Your task to perform on an android device: delete location history Image 0: 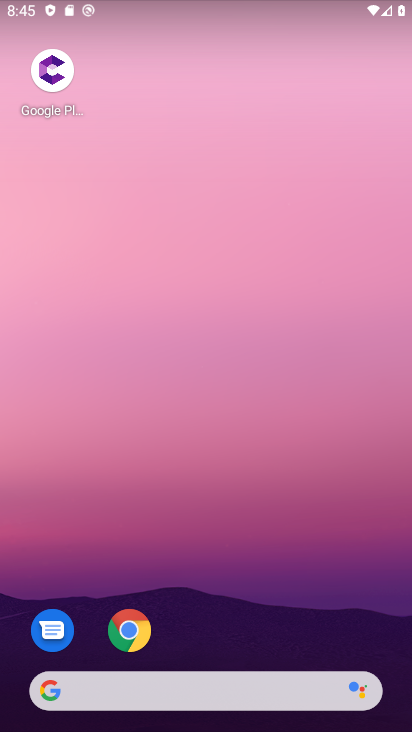
Step 0: drag from (186, 665) to (206, 187)
Your task to perform on an android device: delete location history Image 1: 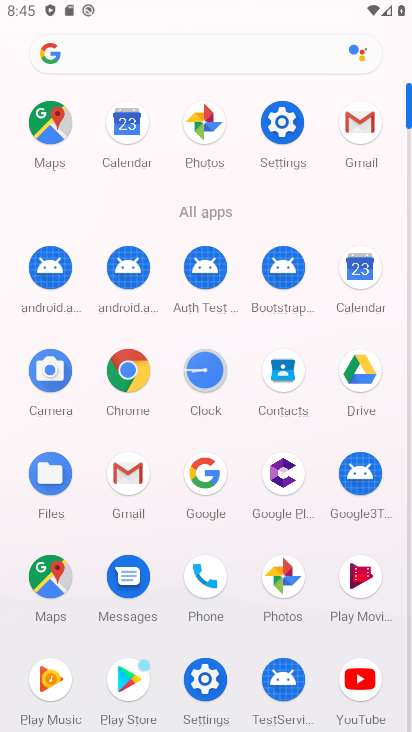
Step 1: click (286, 132)
Your task to perform on an android device: delete location history Image 2: 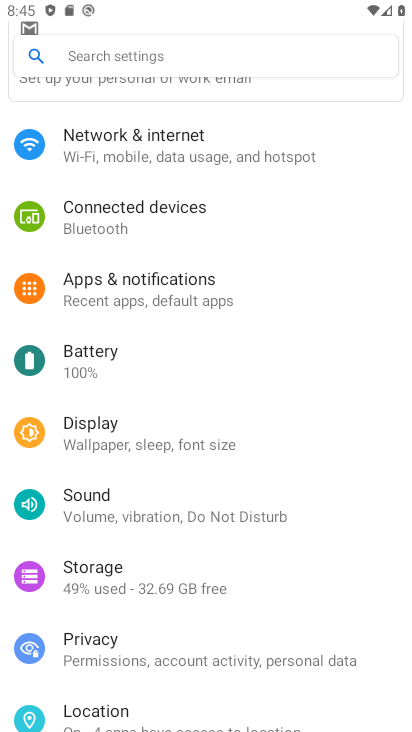
Step 2: drag from (138, 666) to (158, 237)
Your task to perform on an android device: delete location history Image 3: 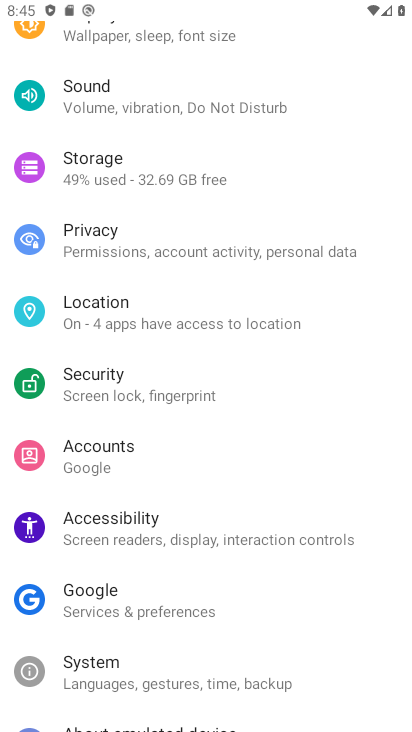
Step 3: click (144, 316)
Your task to perform on an android device: delete location history Image 4: 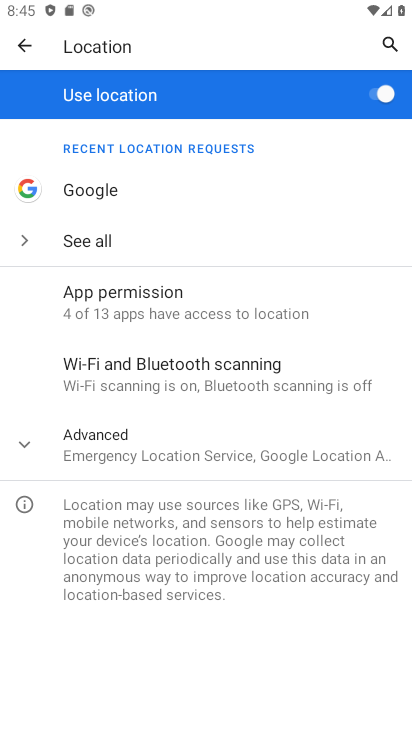
Step 4: click (116, 442)
Your task to perform on an android device: delete location history Image 5: 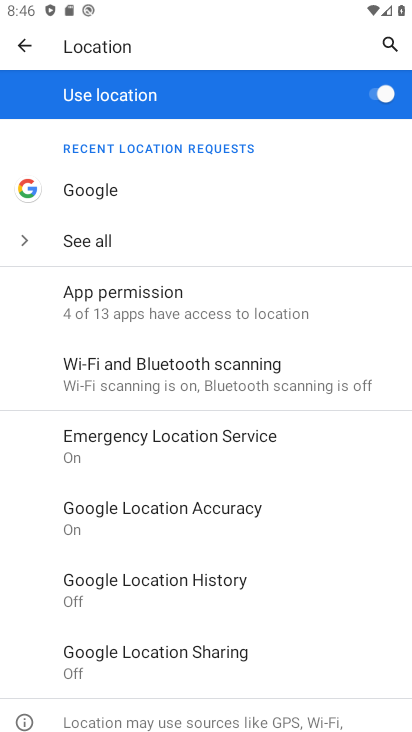
Step 5: click (103, 590)
Your task to perform on an android device: delete location history Image 6: 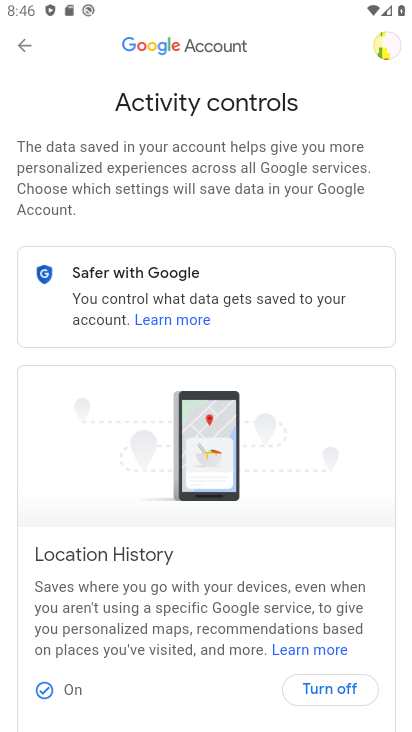
Step 6: drag from (260, 589) to (225, 214)
Your task to perform on an android device: delete location history Image 7: 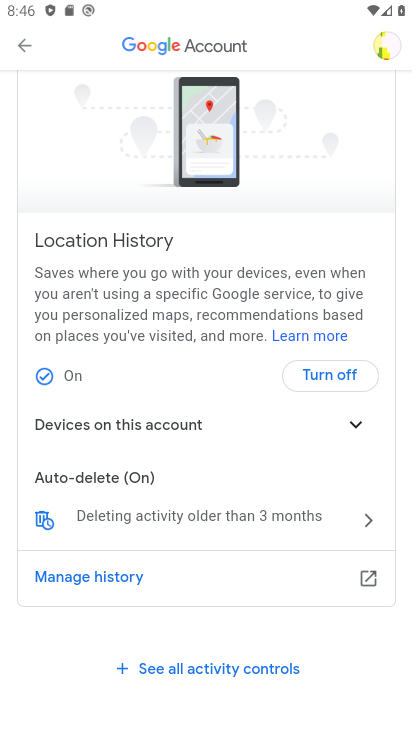
Step 7: click (375, 408)
Your task to perform on an android device: delete location history Image 8: 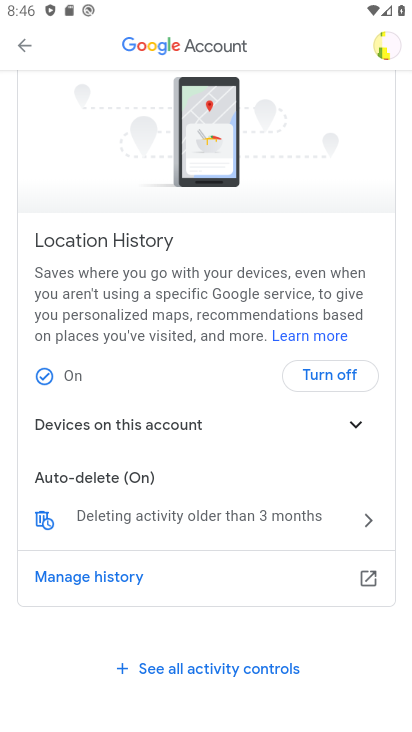
Step 8: click (362, 417)
Your task to perform on an android device: delete location history Image 9: 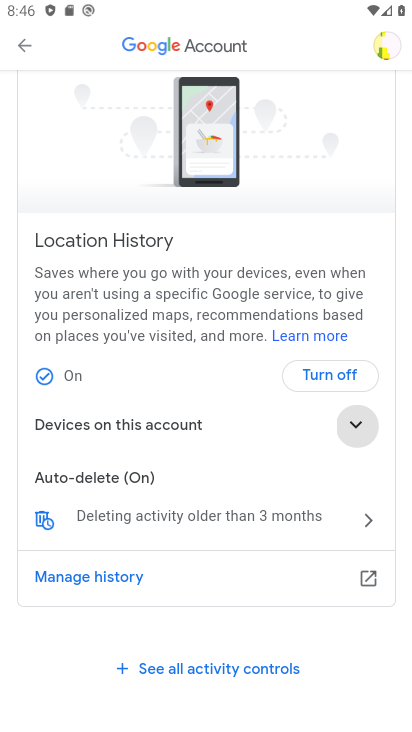
Step 9: click (276, 520)
Your task to perform on an android device: delete location history Image 10: 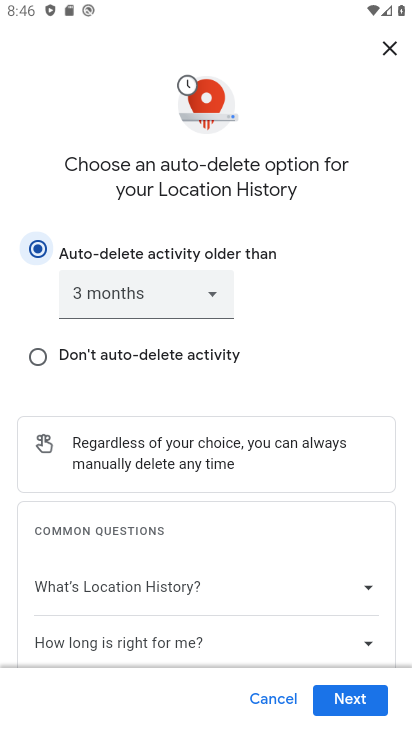
Step 10: click (355, 704)
Your task to perform on an android device: delete location history Image 11: 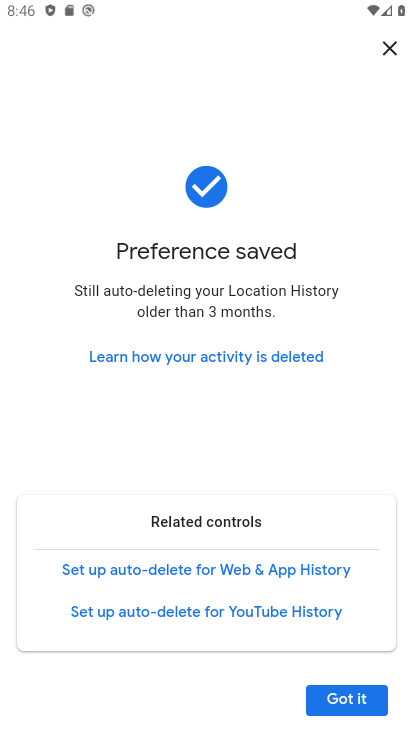
Step 11: click (355, 704)
Your task to perform on an android device: delete location history Image 12: 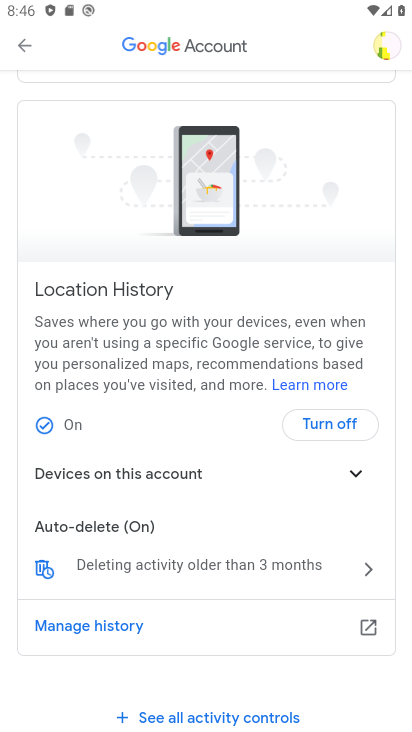
Step 12: task complete